Your task to perform on an android device: When is my next appointment? Image 0: 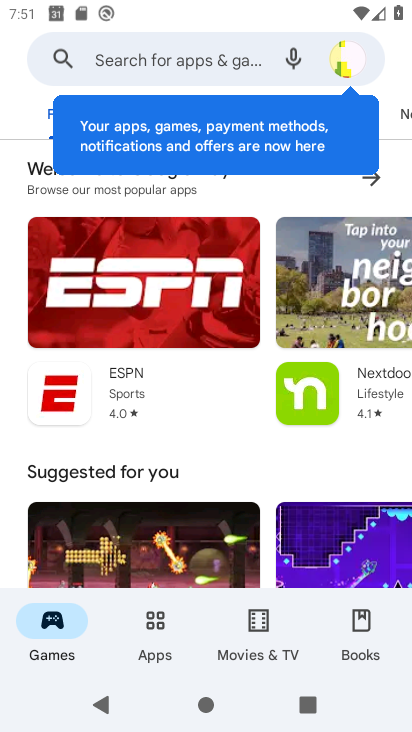
Step 0: press home button
Your task to perform on an android device: When is my next appointment? Image 1: 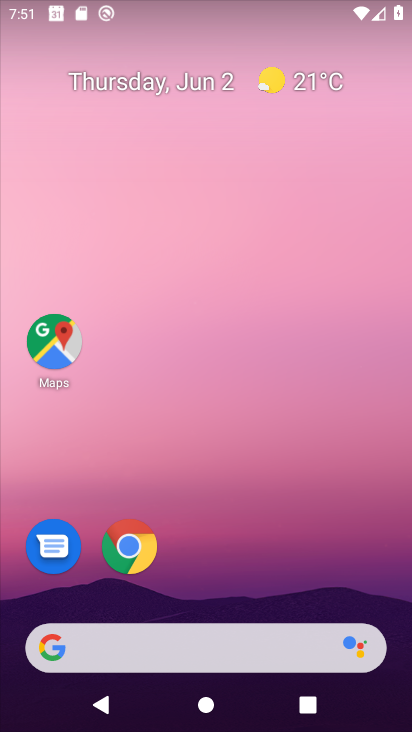
Step 1: drag from (331, 508) to (346, 171)
Your task to perform on an android device: When is my next appointment? Image 2: 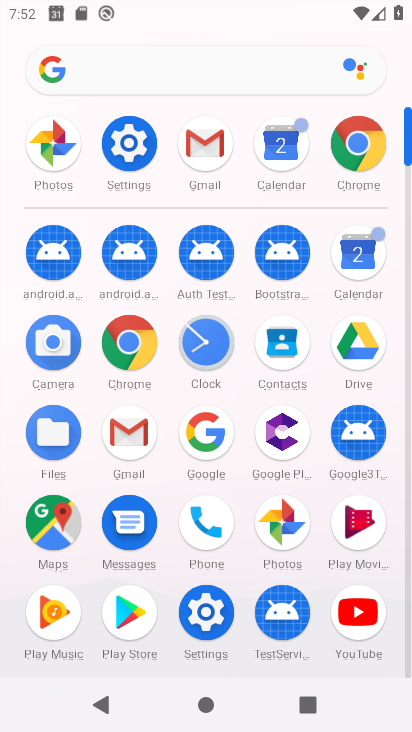
Step 2: click (353, 272)
Your task to perform on an android device: When is my next appointment? Image 3: 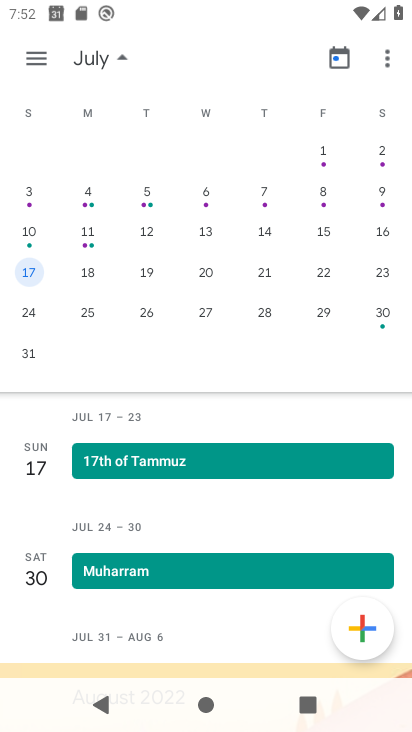
Step 3: click (17, 192)
Your task to perform on an android device: When is my next appointment? Image 4: 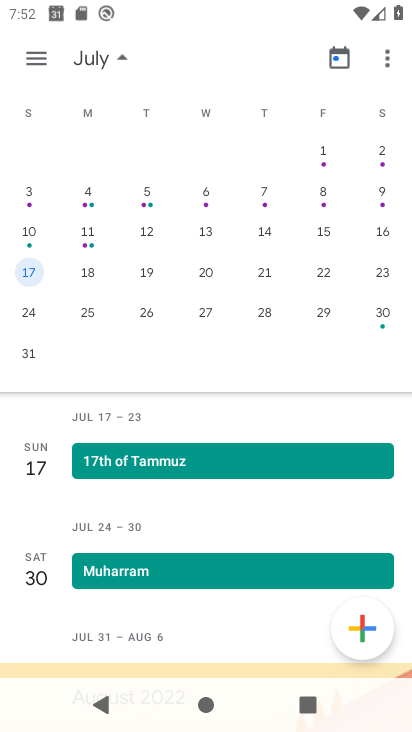
Step 4: click (32, 194)
Your task to perform on an android device: When is my next appointment? Image 5: 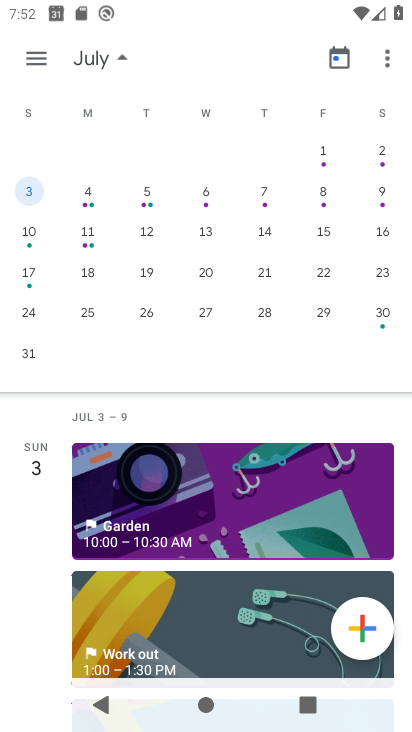
Step 5: task complete